Your task to perform on an android device: check storage Image 0: 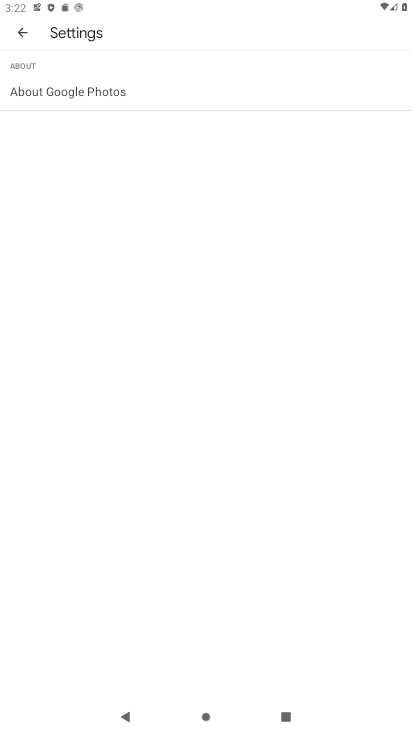
Step 0: press home button
Your task to perform on an android device: check storage Image 1: 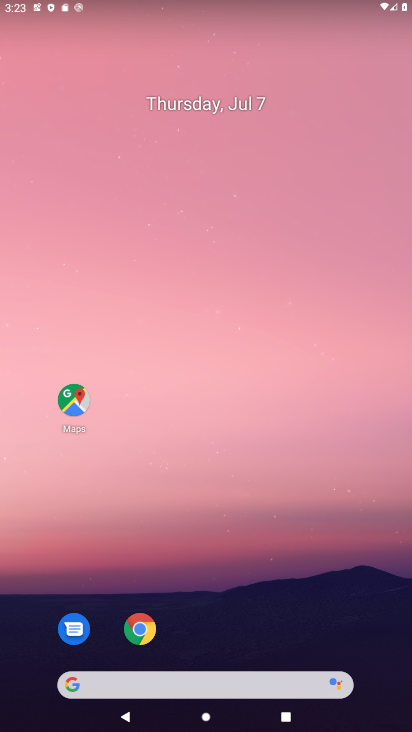
Step 1: drag from (276, 619) to (256, 274)
Your task to perform on an android device: check storage Image 2: 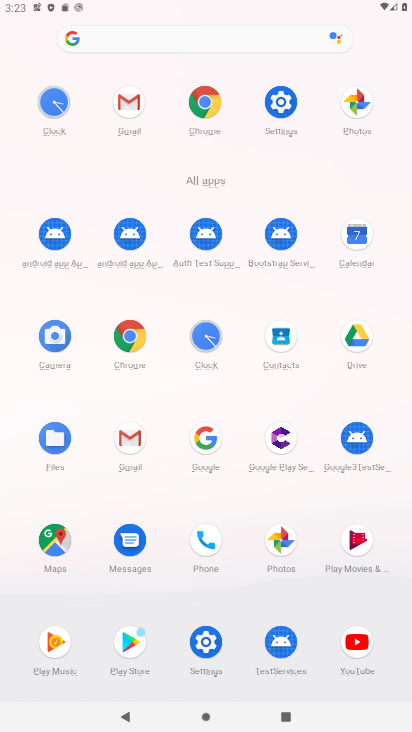
Step 2: click (274, 104)
Your task to perform on an android device: check storage Image 3: 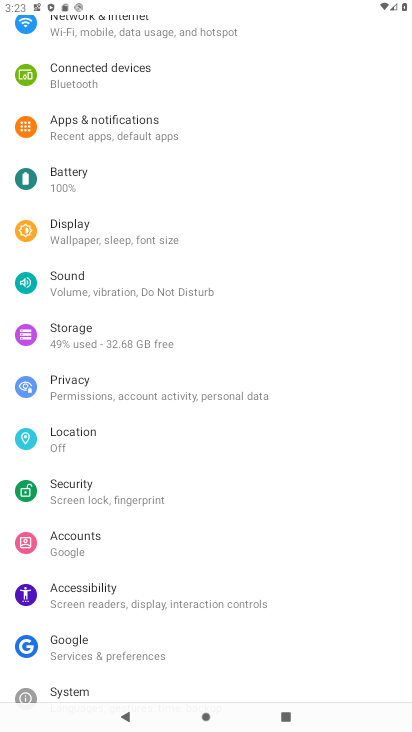
Step 3: click (107, 329)
Your task to perform on an android device: check storage Image 4: 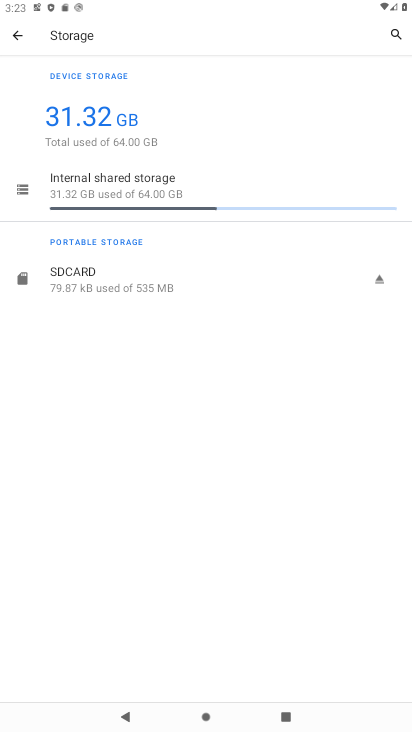
Step 4: task complete